Your task to perform on an android device: Open Google Maps and go to "Timeline" Image 0: 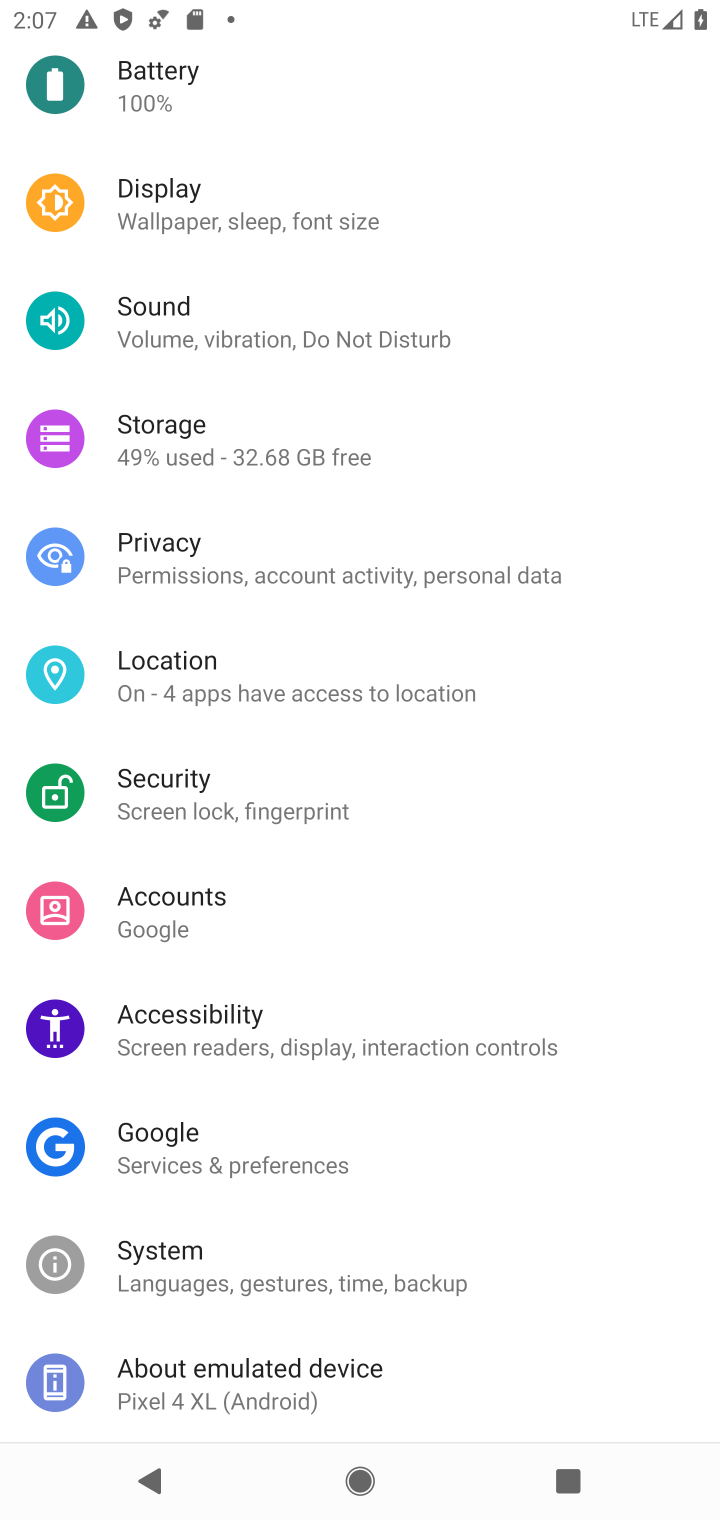
Step 0: press back button
Your task to perform on an android device: Open Google Maps and go to "Timeline" Image 1: 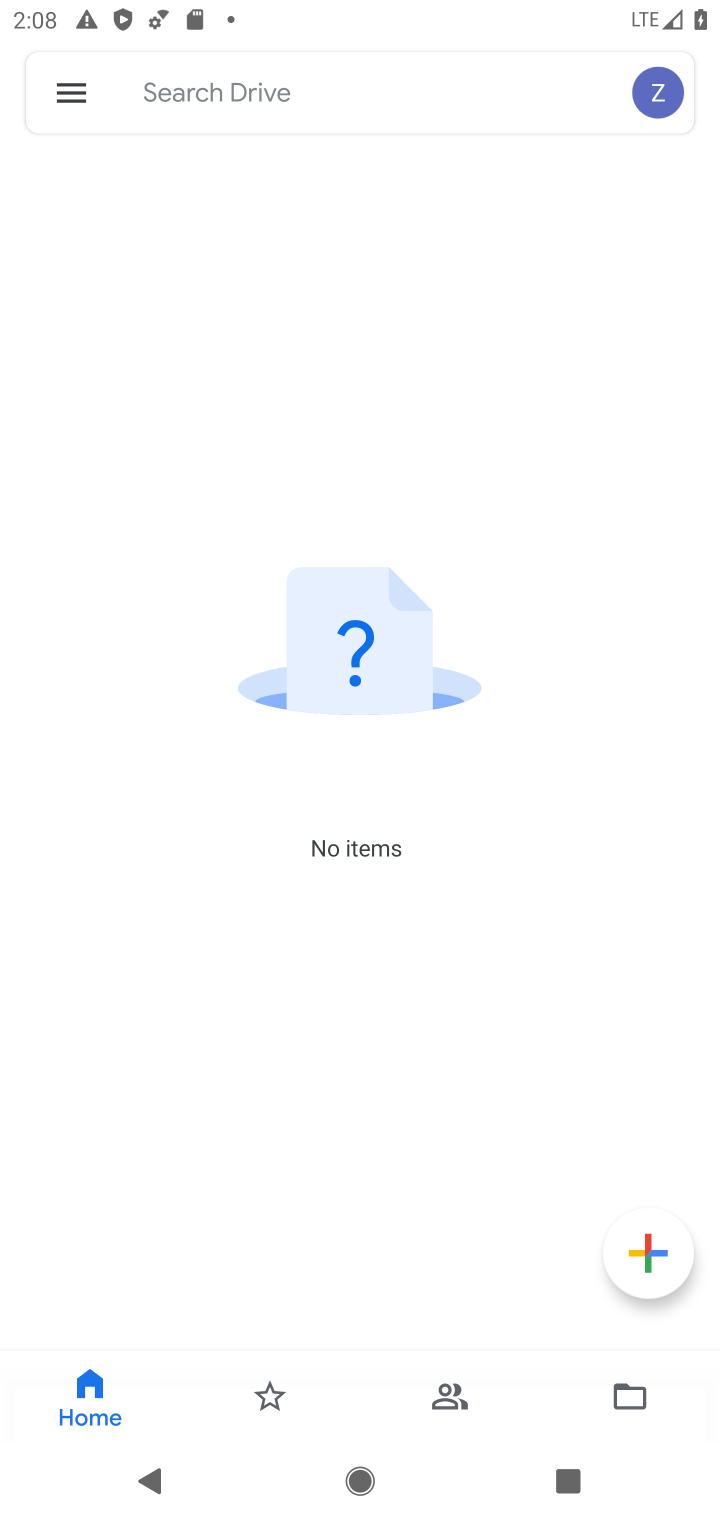
Step 1: press back button
Your task to perform on an android device: Open Google Maps and go to "Timeline" Image 2: 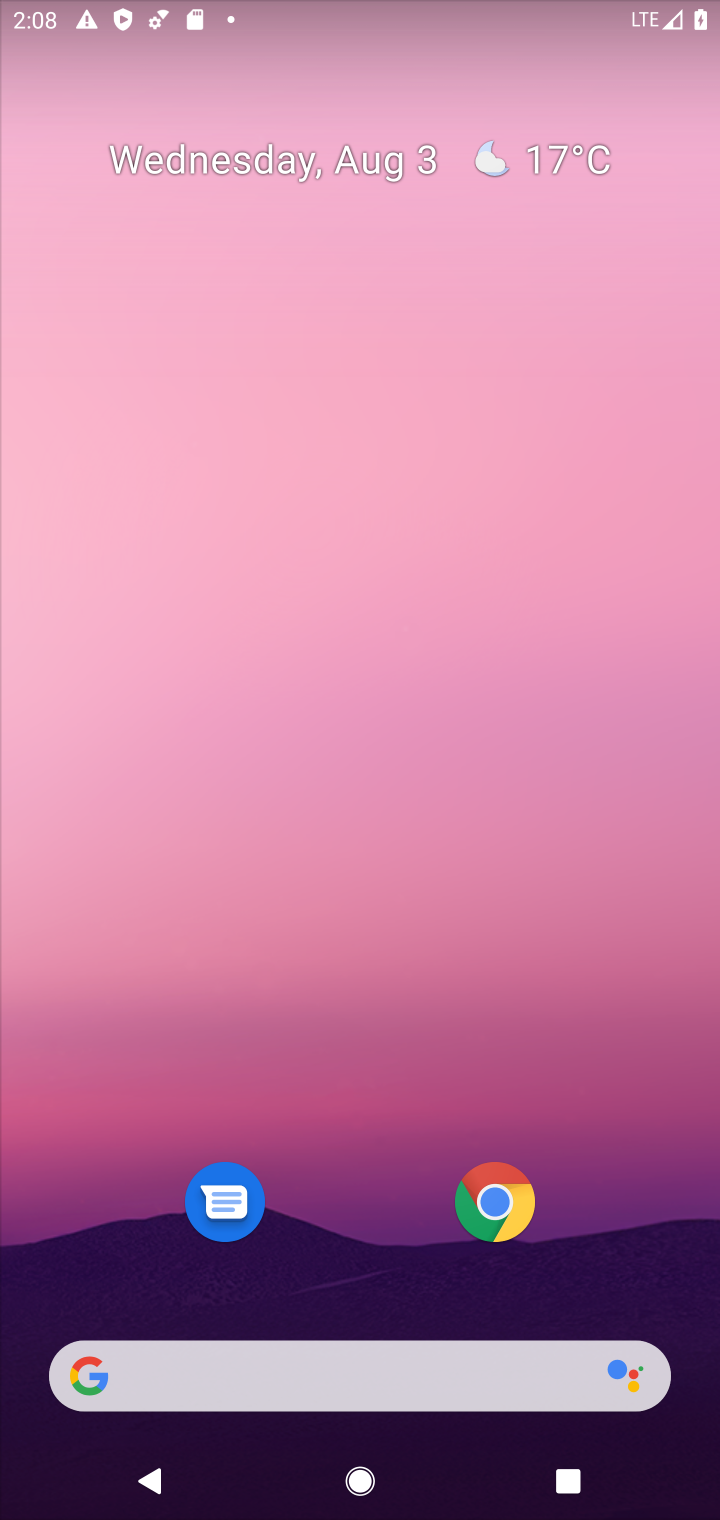
Step 2: drag from (382, 1283) to (445, 127)
Your task to perform on an android device: Open Google Maps and go to "Timeline" Image 3: 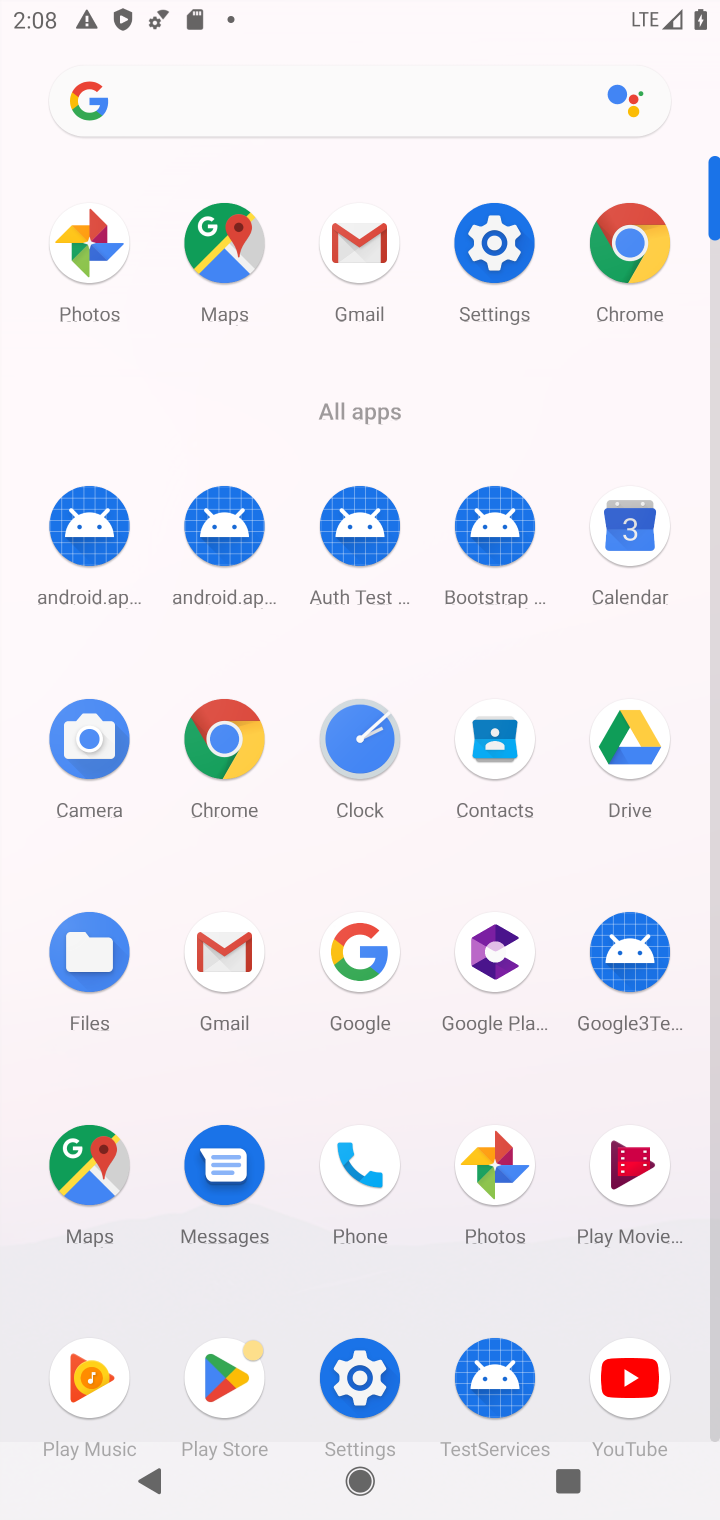
Step 3: click (228, 261)
Your task to perform on an android device: Open Google Maps and go to "Timeline" Image 4: 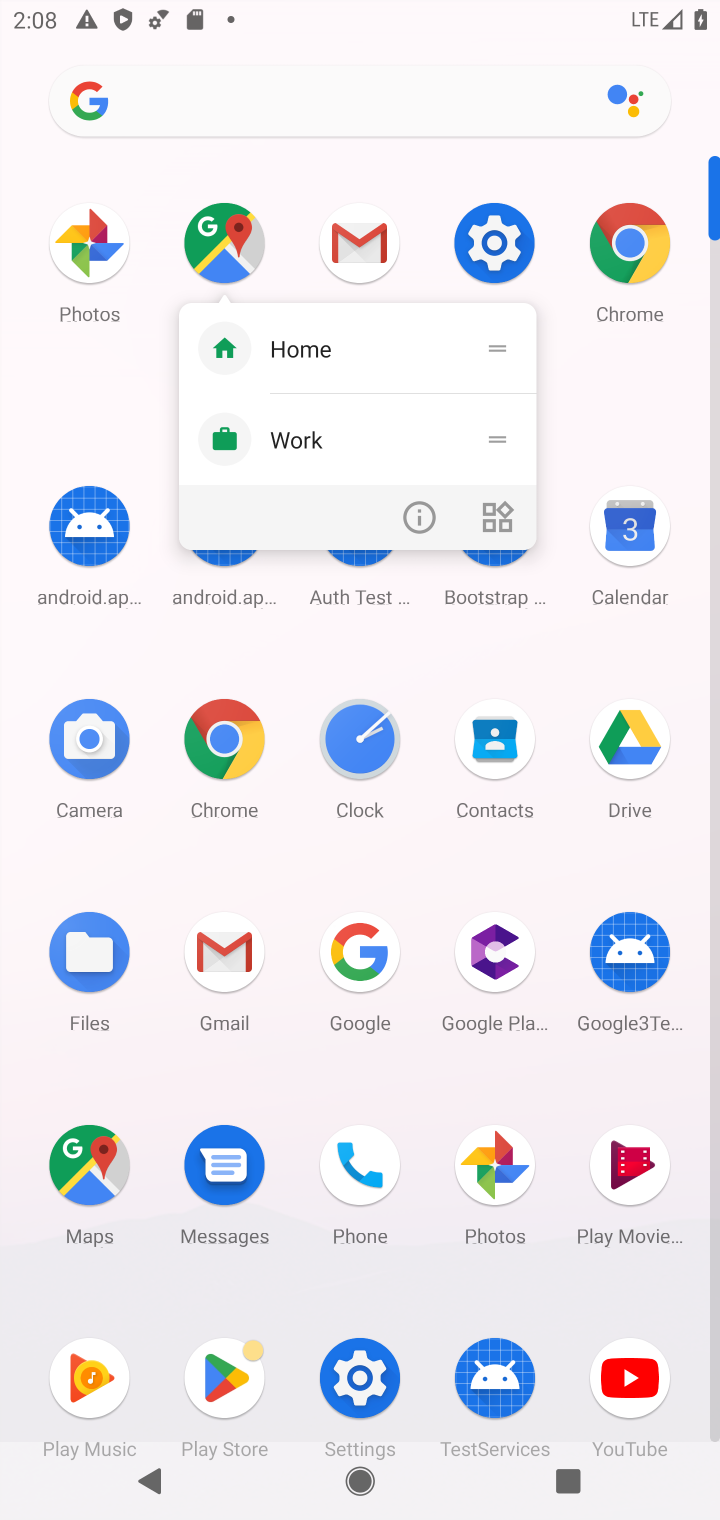
Step 4: click (236, 245)
Your task to perform on an android device: Open Google Maps and go to "Timeline" Image 5: 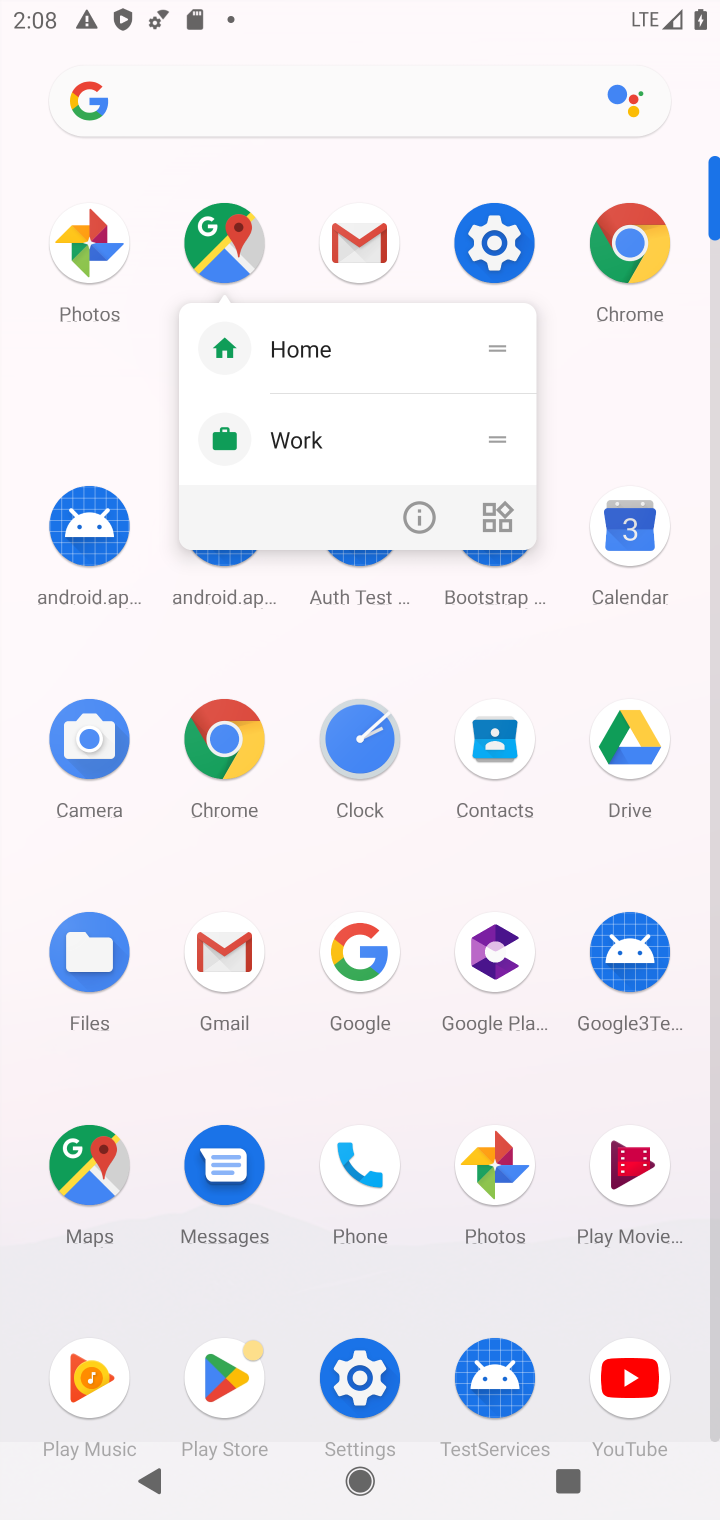
Step 5: click (216, 225)
Your task to perform on an android device: Open Google Maps and go to "Timeline" Image 6: 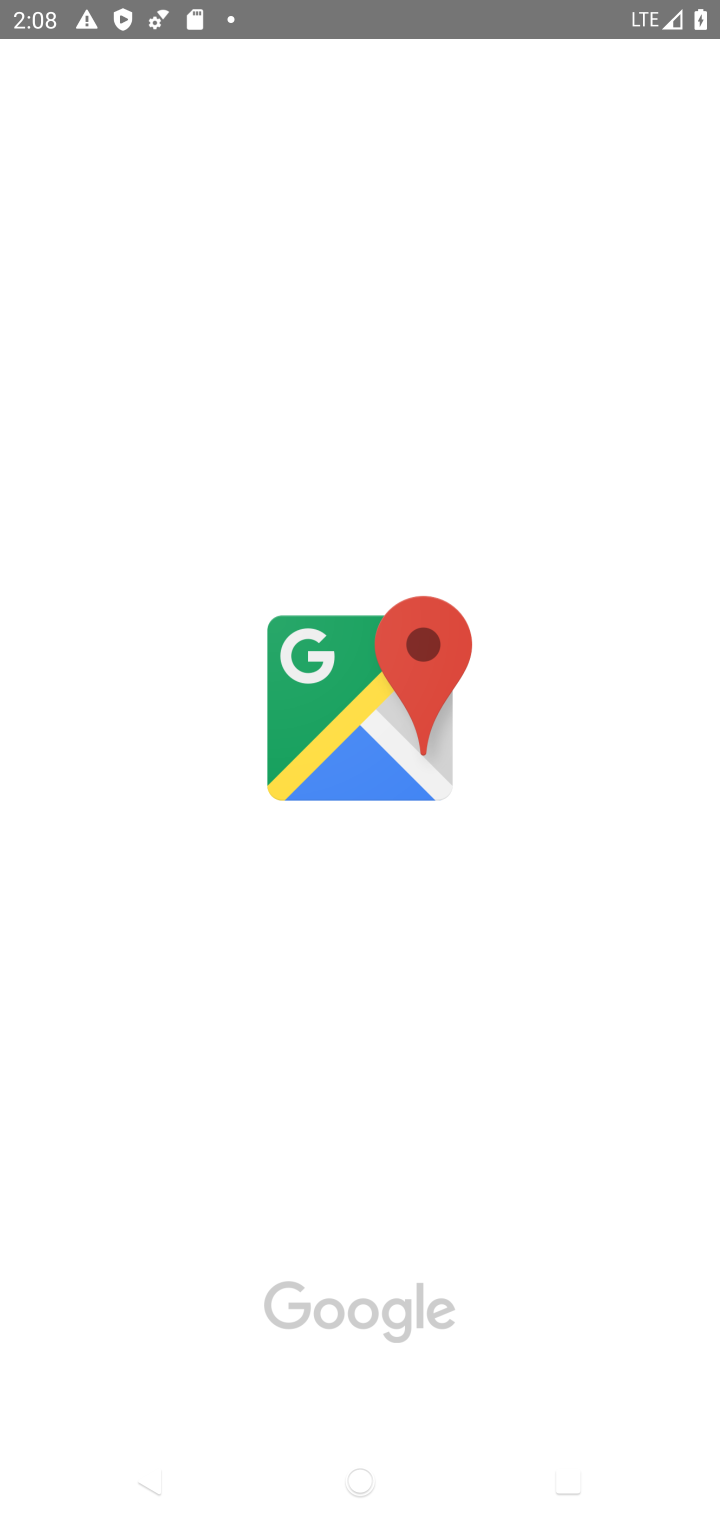
Step 6: click (224, 239)
Your task to perform on an android device: Open Google Maps and go to "Timeline" Image 7: 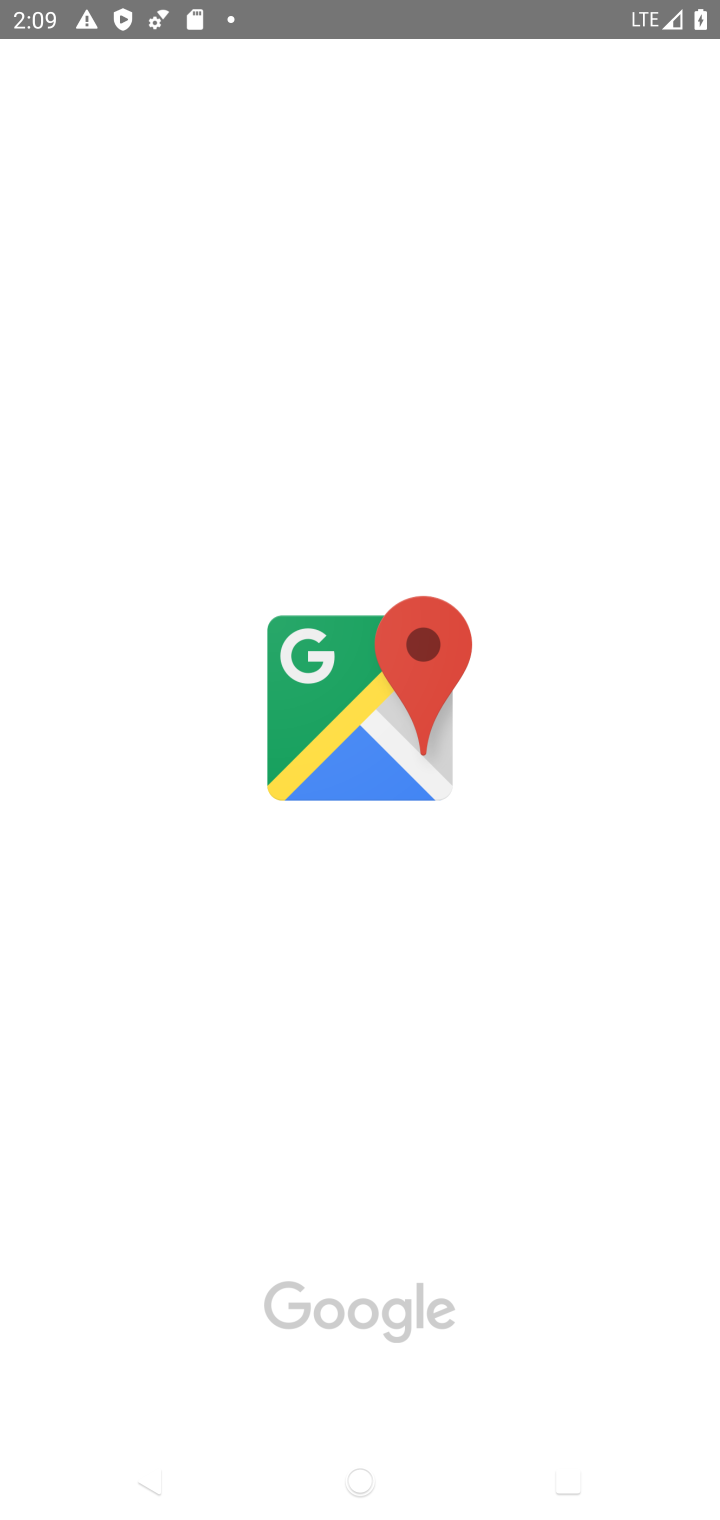
Step 7: task complete